Your task to perform on an android device: create a new album in the google photos Image 0: 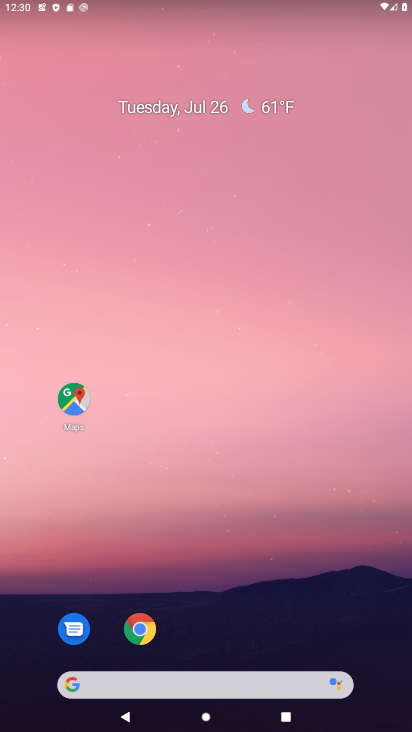
Step 0: drag from (194, 625) to (188, 254)
Your task to perform on an android device: create a new album in the google photos Image 1: 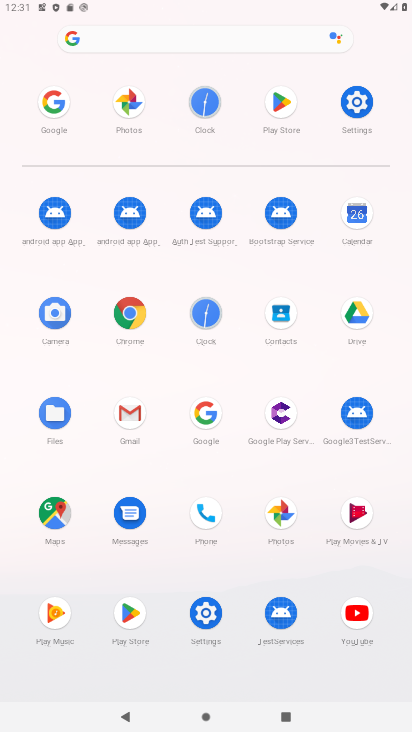
Step 1: click (266, 512)
Your task to perform on an android device: create a new album in the google photos Image 2: 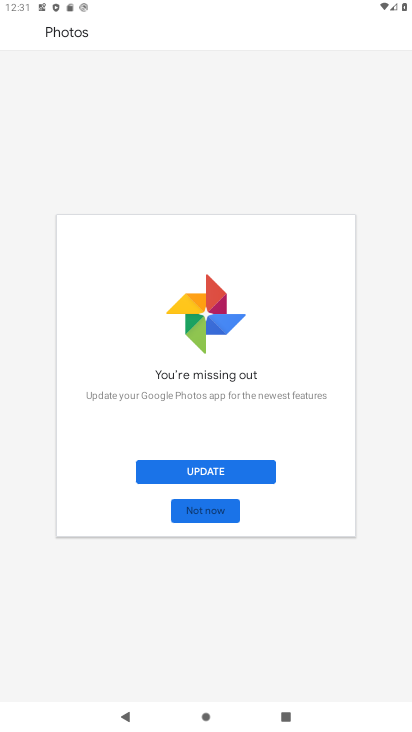
Step 2: click (209, 512)
Your task to perform on an android device: create a new album in the google photos Image 3: 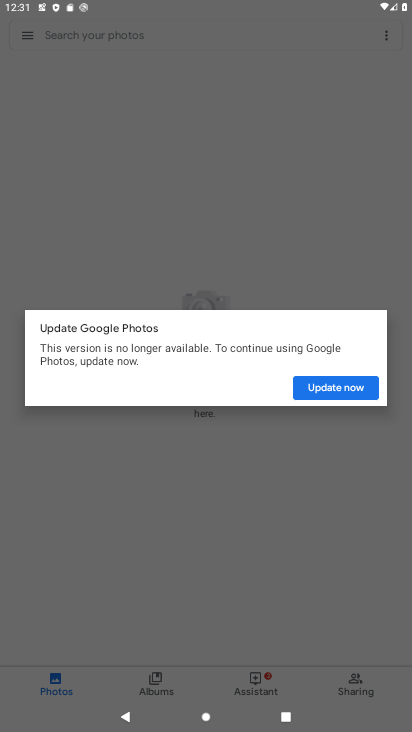
Step 3: click (319, 392)
Your task to perform on an android device: create a new album in the google photos Image 4: 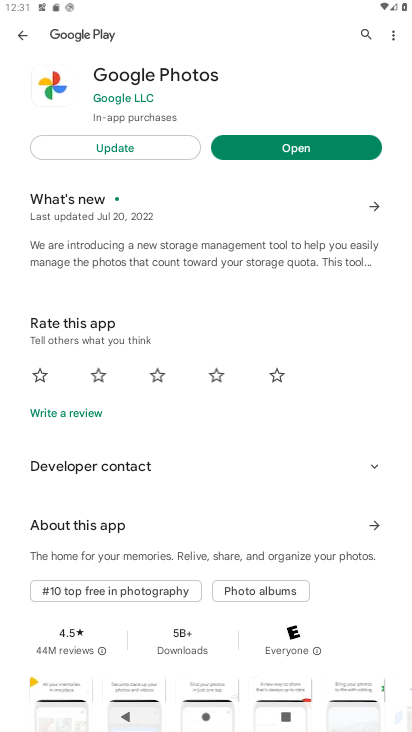
Step 4: click (282, 142)
Your task to perform on an android device: create a new album in the google photos Image 5: 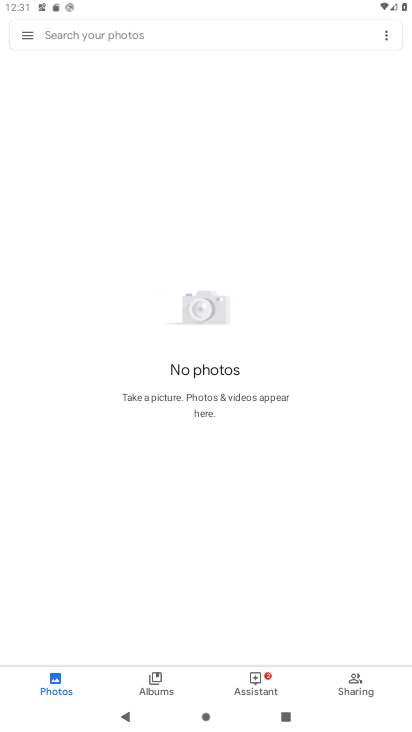
Step 5: click (385, 32)
Your task to perform on an android device: create a new album in the google photos Image 6: 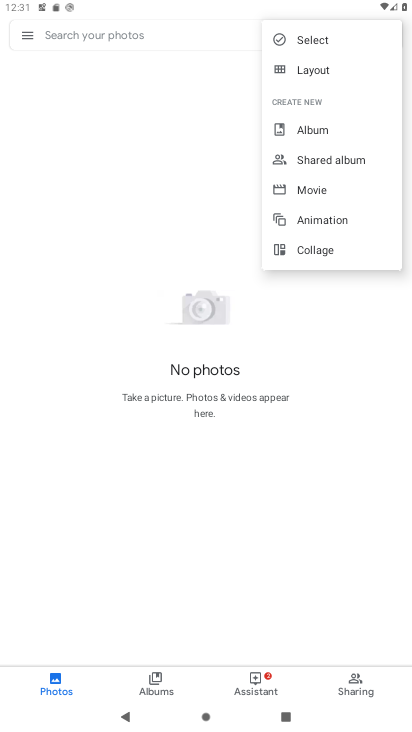
Step 6: click (309, 127)
Your task to perform on an android device: create a new album in the google photos Image 7: 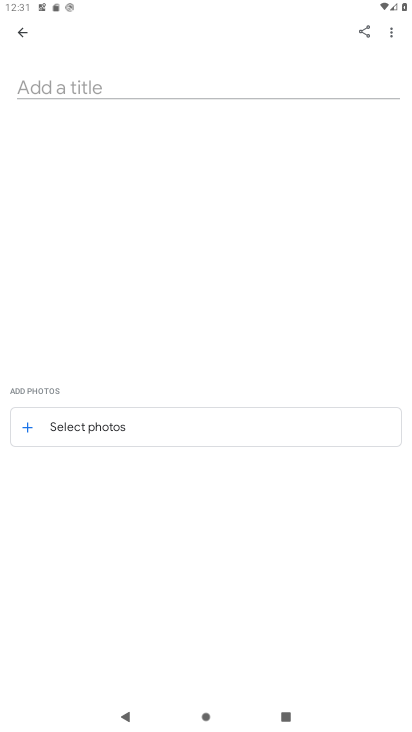
Step 7: click (81, 92)
Your task to perform on an android device: create a new album in the google photos Image 8: 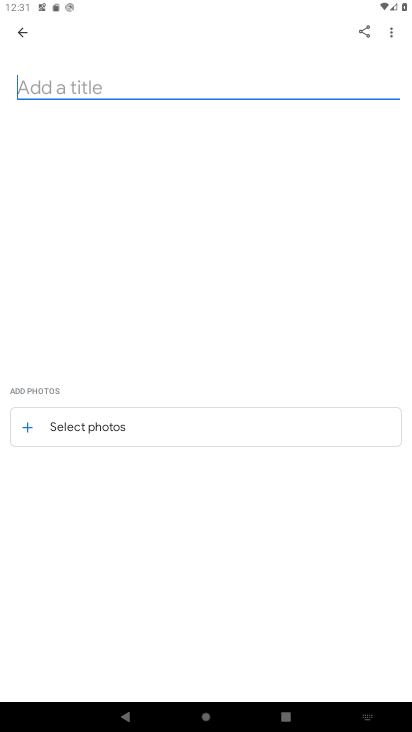
Step 8: type "sdsd"
Your task to perform on an android device: create a new album in the google photos Image 9: 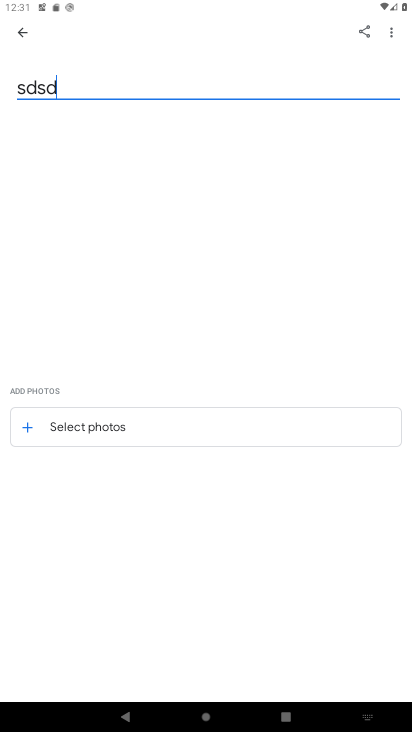
Step 9: type ""
Your task to perform on an android device: create a new album in the google photos Image 10: 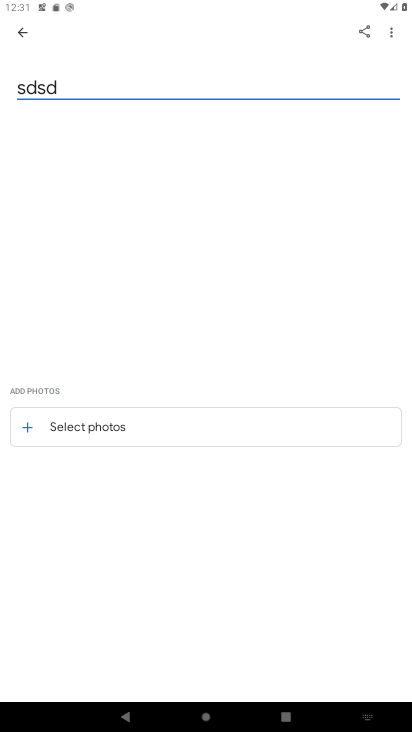
Step 10: click (20, 35)
Your task to perform on an android device: create a new album in the google photos Image 11: 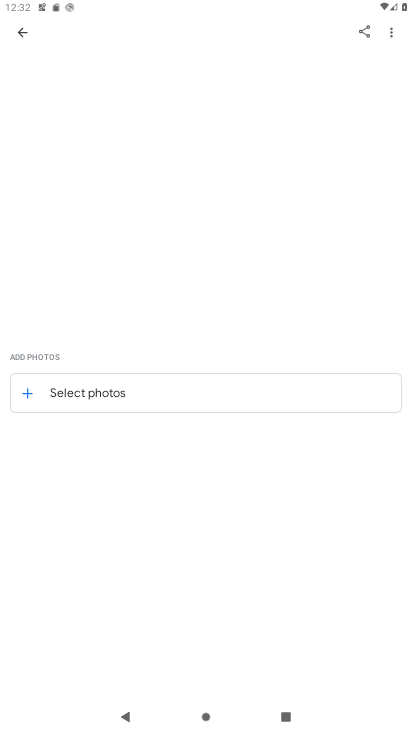
Step 11: click (21, 32)
Your task to perform on an android device: create a new album in the google photos Image 12: 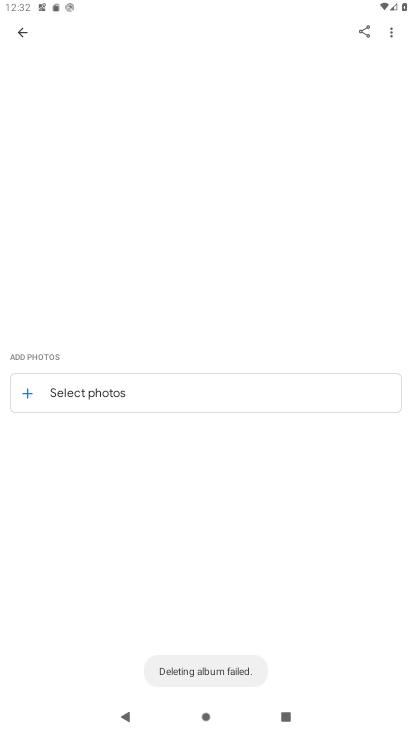
Step 12: task complete